Your task to perform on an android device: turn notification dots off Image 0: 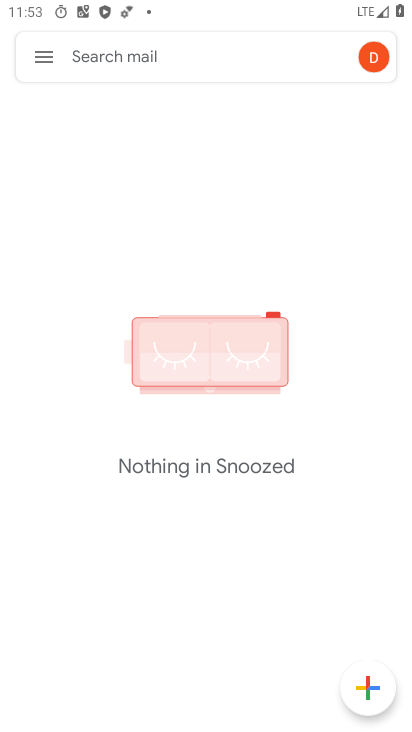
Step 0: press home button
Your task to perform on an android device: turn notification dots off Image 1: 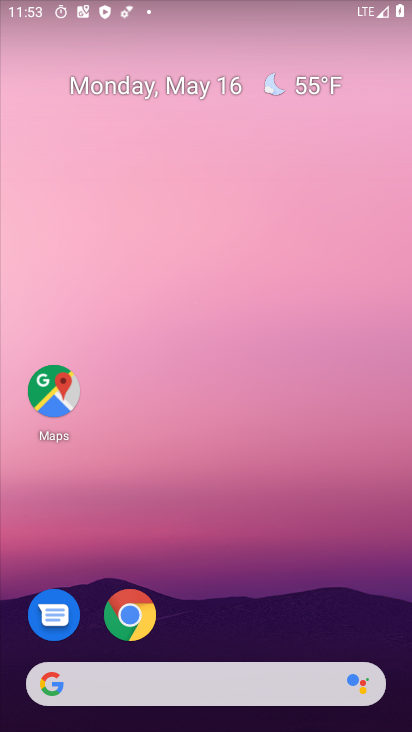
Step 1: drag from (234, 587) to (333, 92)
Your task to perform on an android device: turn notification dots off Image 2: 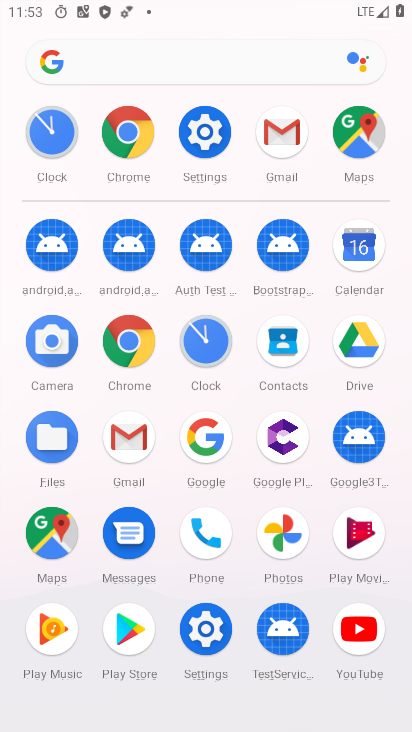
Step 2: click (200, 637)
Your task to perform on an android device: turn notification dots off Image 3: 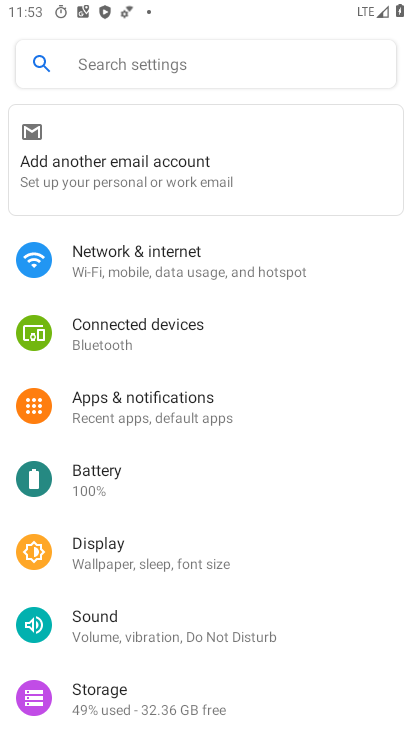
Step 3: drag from (245, 619) to (302, 225)
Your task to perform on an android device: turn notification dots off Image 4: 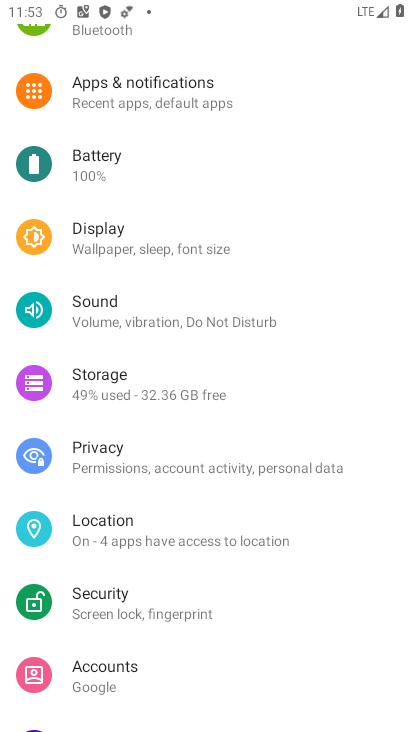
Step 4: click (189, 93)
Your task to perform on an android device: turn notification dots off Image 5: 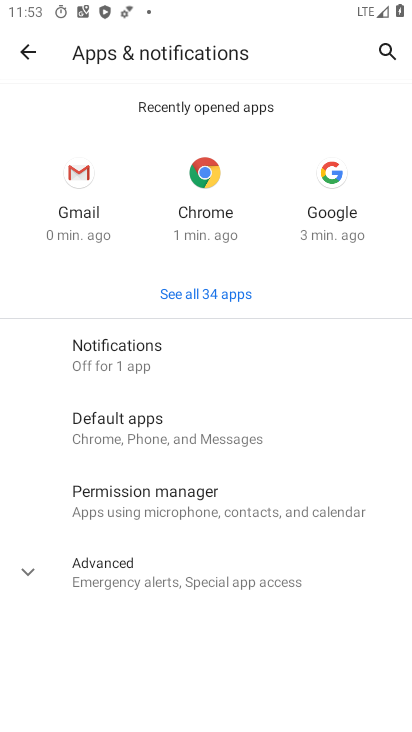
Step 5: click (178, 360)
Your task to perform on an android device: turn notification dots off Image 6: 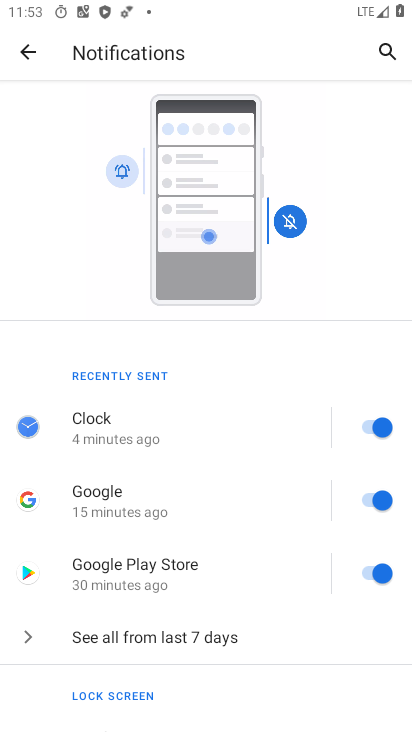
Step 6: drag from (297, 672) to (312, 298)
Your task to perform on an android device: turn notification dots off Image 7: 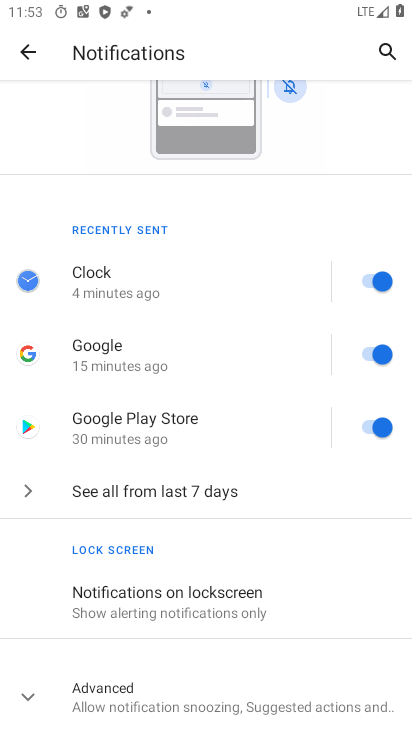
Step 7: click (220, 703)
Your task to perform on an android device: turn notification dots off Image 8: 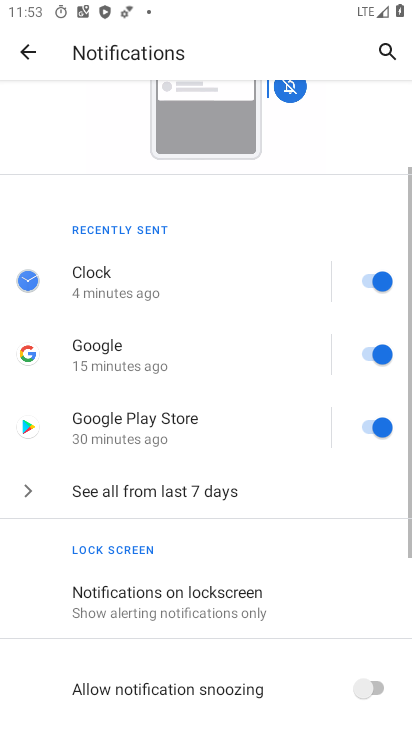
Step 8: task complete